Your task to perform on an android device: Open Google Chrome and open the bookmarks view Image 0: 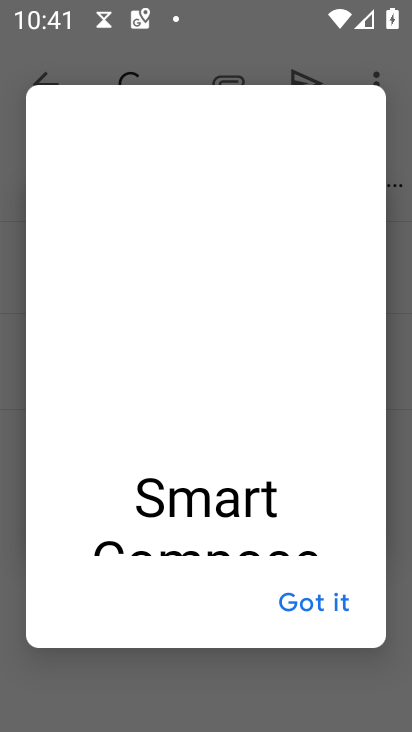
Step 0: press home button
Your task to perform on an android device: Open Google Chrome and open the bookmarks view Image 1: 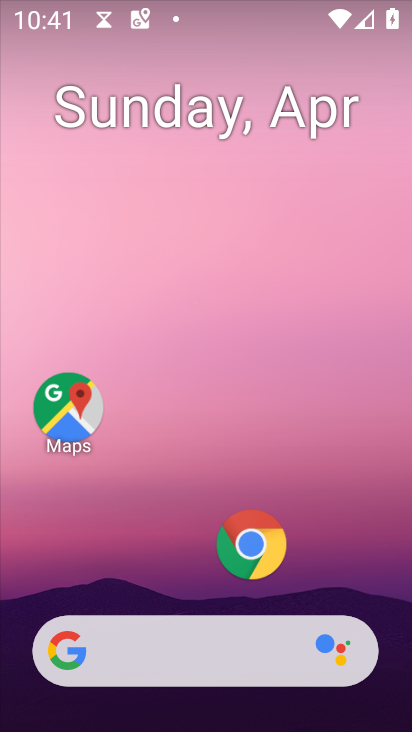
Step 1: click (235, 534)
Your task to perform on an android device: Open Google Chrome and open the bookmarks view Image 2: 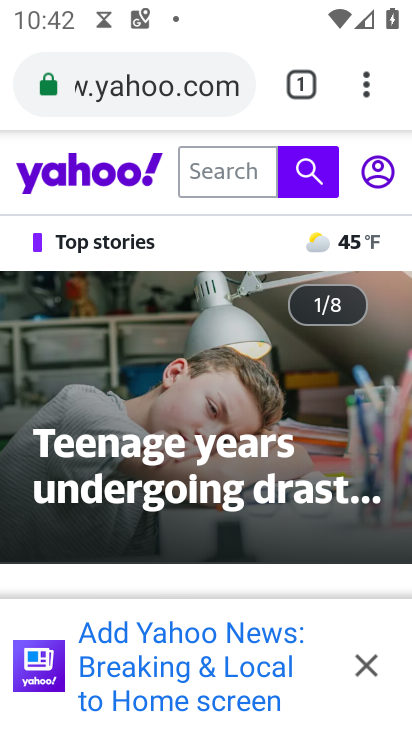
Step 2: drag from (363, 96) to (121, 336)
Your task to perform on an android device: Open Google Chrome and open the bookmarks view Image 3: 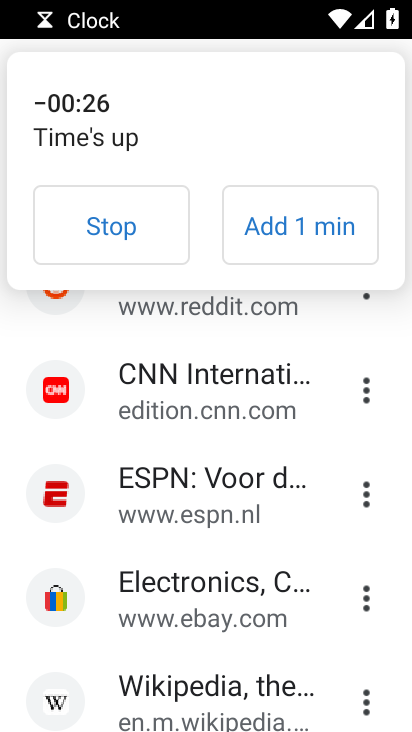
Step 3: click (97, 228)
Your task to perform on an android device: Open Google Chrome and open the bookmarks view Image 4: 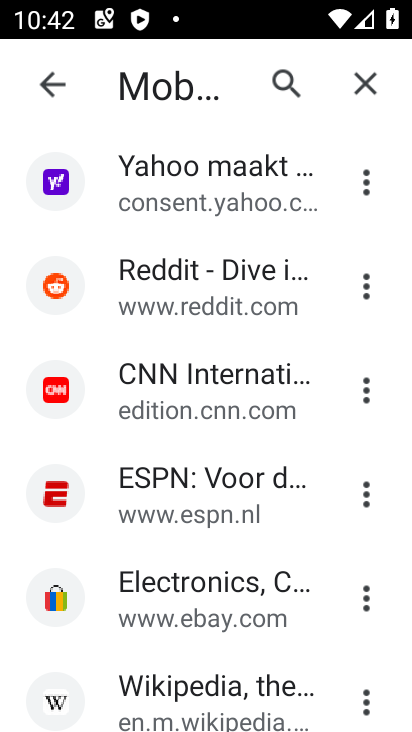
Step 4: task complete